Your task to perform on an android device: Go to location settings Image 0: 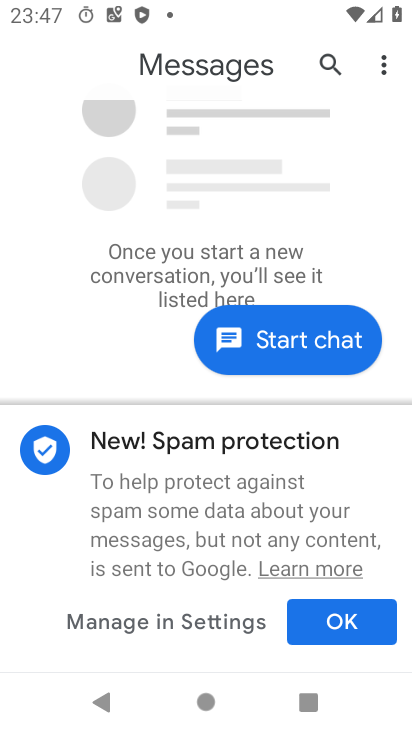
Step 0: press home button
Your task to perform on an android device: Go to location settings Image 1: 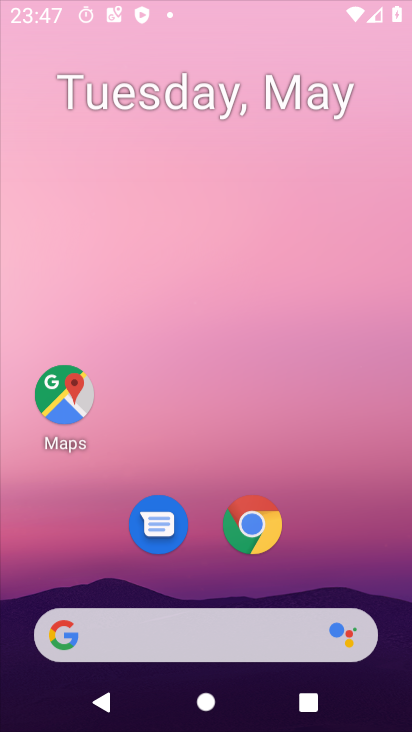
Step 1: drag from (226, 547) to (194, 174)
Your task to perform on an android device: Go to location settings Image 2: 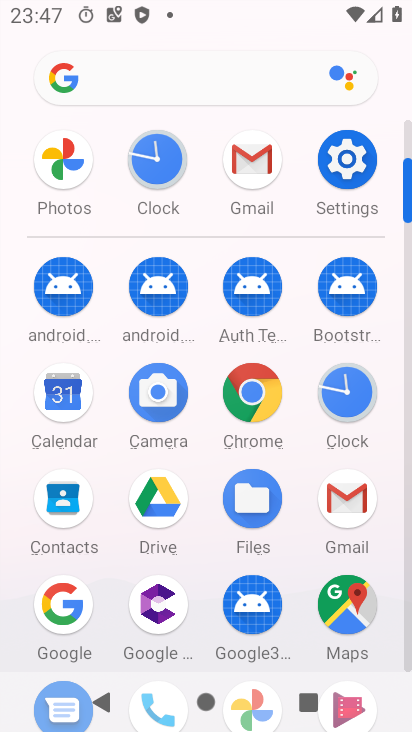
Step 2: drag from (206, 414) to (171, 103)
Your task to perform on an android device: Go to location settings Image 3: 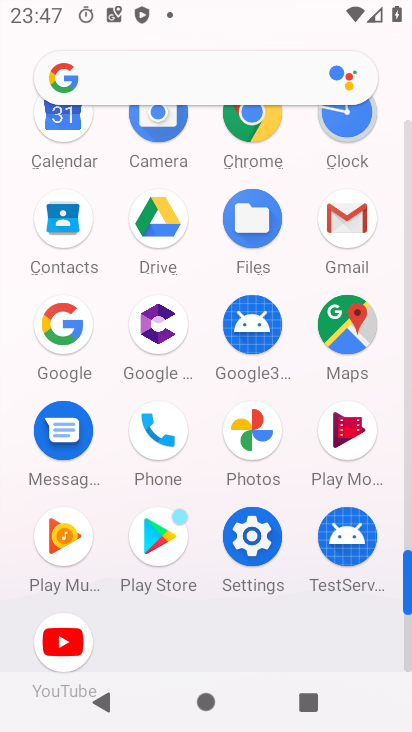
Step 3: drag from (210, 457) to (206, 168)
Your task to perform on an android device: Go to location settings Image 4: 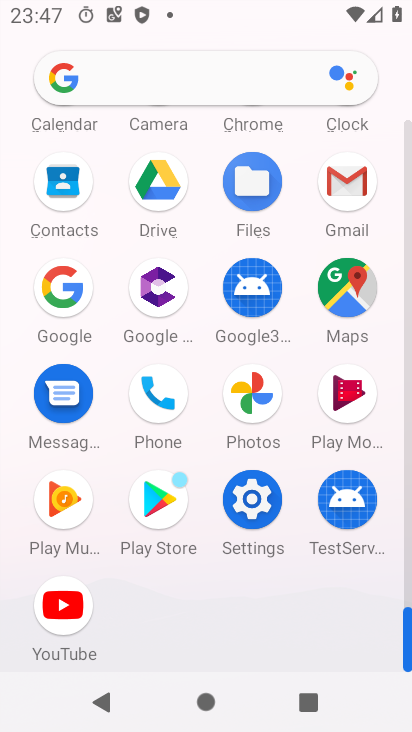
Step 4: click (252, 502)
Your task to perform on an android device: Go to location settings Image 5: 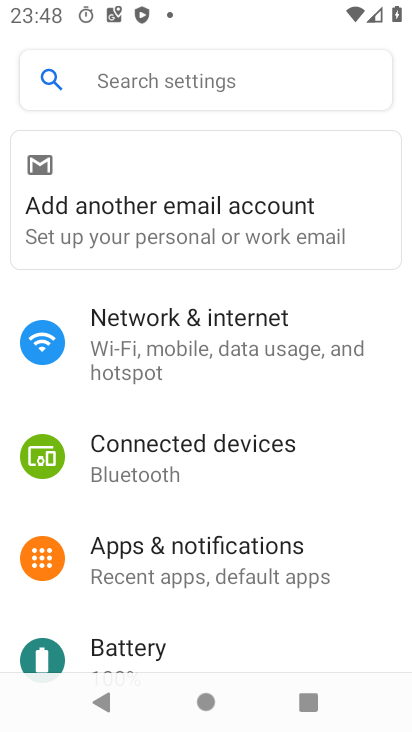
Step 5: drag from (219, 653) to (249, 388)
Your task to perform on an android device: Go to location settings Image 6: 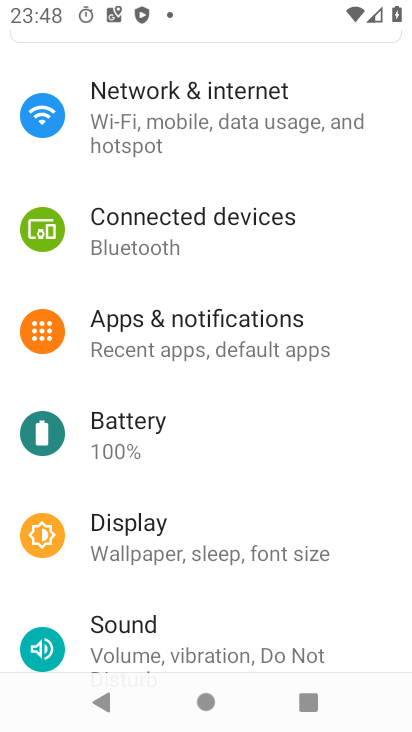
Step 6: drag from (181, 552) to (207, 289)
Your task to perform on an android device: Go to location settings Image 7: 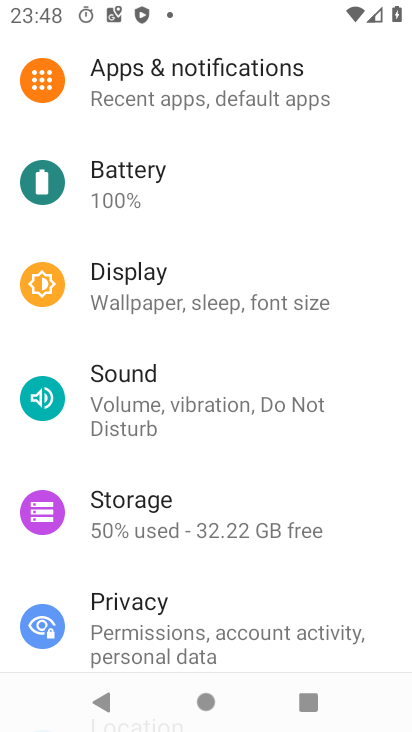
Step 7: drag from (213, 531) to (237, 161)
Your task to perform on an android device: Go to location settings Image 8: 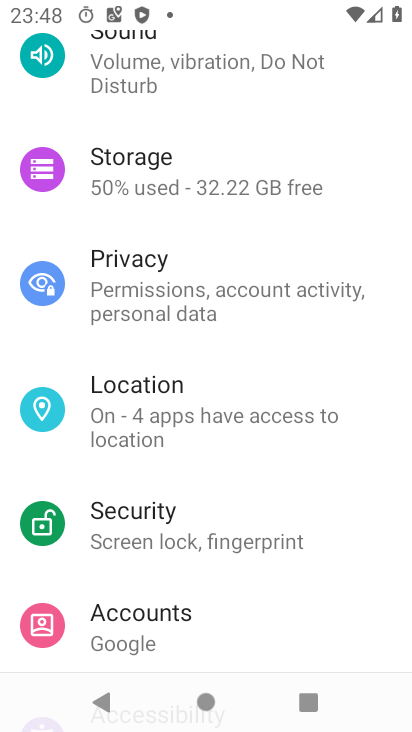
Step 8: click (220, 397)
Your task to perform on an android device: Go to location settings Image 9: 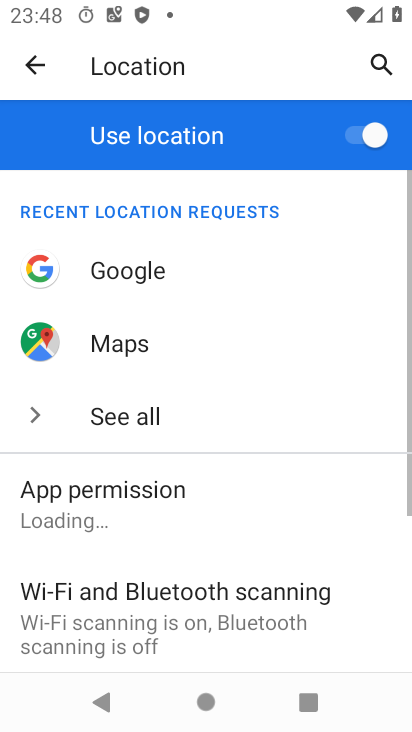
Step 9: drag from (193, 555) to (235, 252)
Your task to perform on an android device: Go to location settings Image 10: 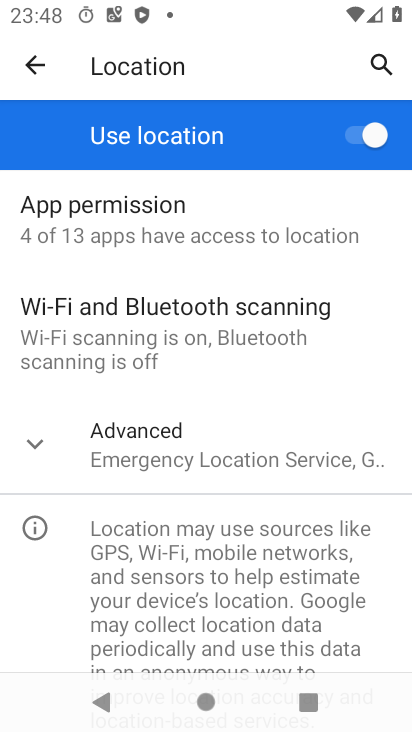
Step 10: click (121, 454)
Your task to perform on an android device: Go to location settings Image 11: 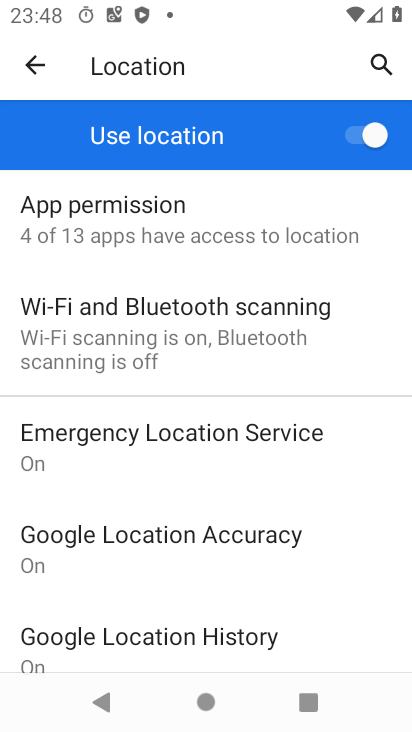
Step 11: task complete